Your task to perform on an android device: toggle airplane mode Image 0: 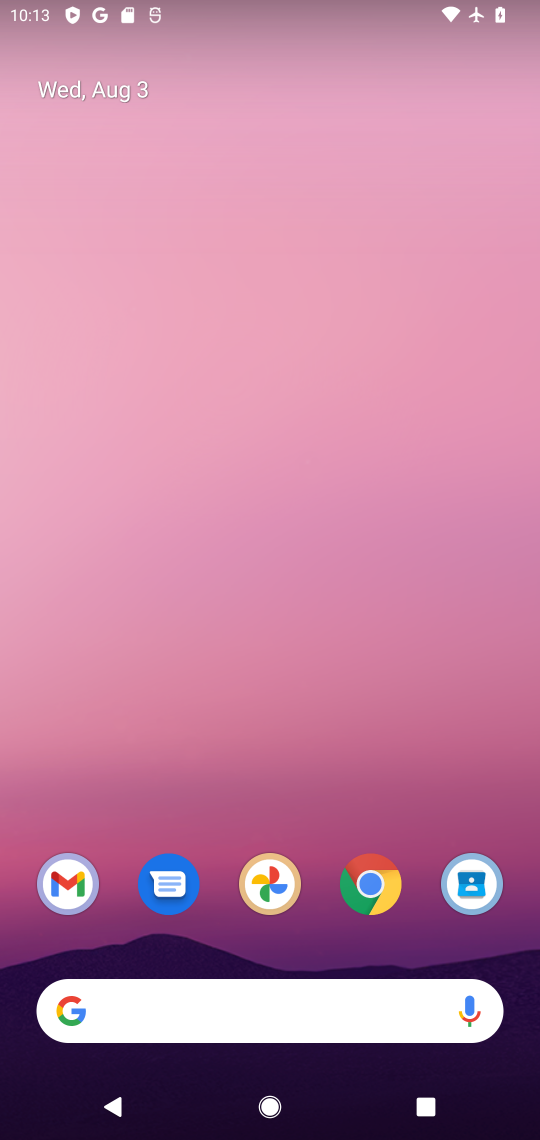
Step 0: press home button
Your task to perform on an android device: toggle airplane mode Image 1: 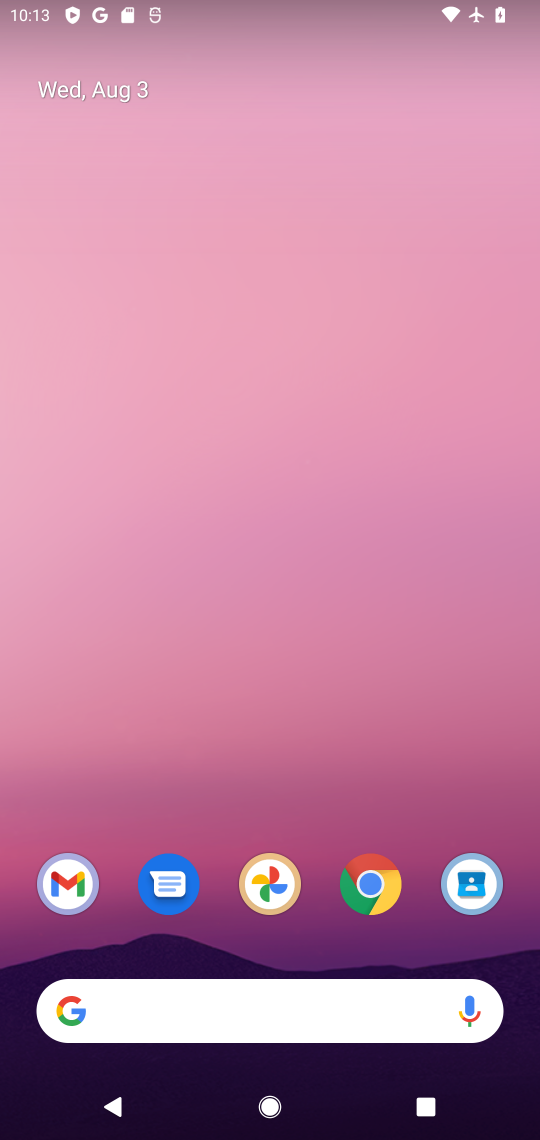
Step 1: drag from (252, 2) to (329, 700)
Your task to perform on an android device: toggle airplane mode Image 2: 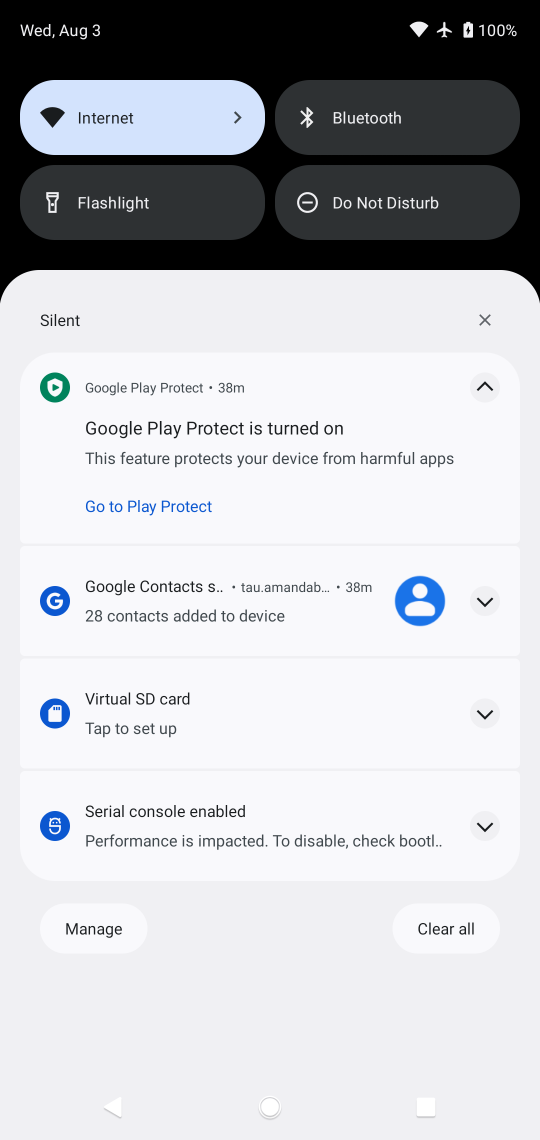
Step 2: drag from (290, 152) to (8, 217)
Your task to perform on an android device: toggle airplane mode Image 3: 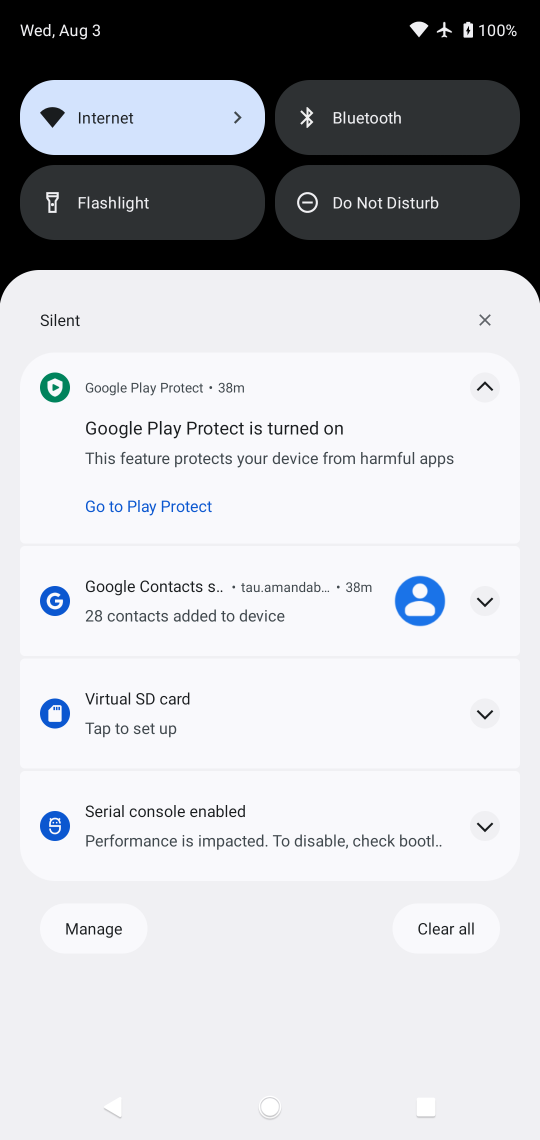
Step 3: drag from (291, 217) to (320, 711)
Your task to perform on an android device: toggle airplane mode Image 4: 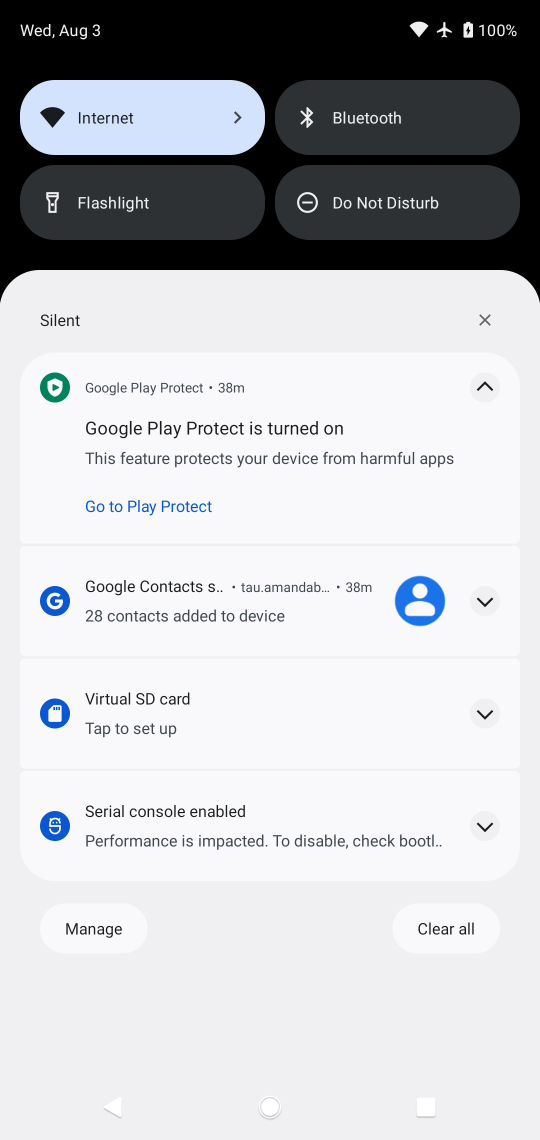
Step 4: drag from (220, 955) to (118, 360)
Your task to perform on an android device: toggle airplane mode Image 5: 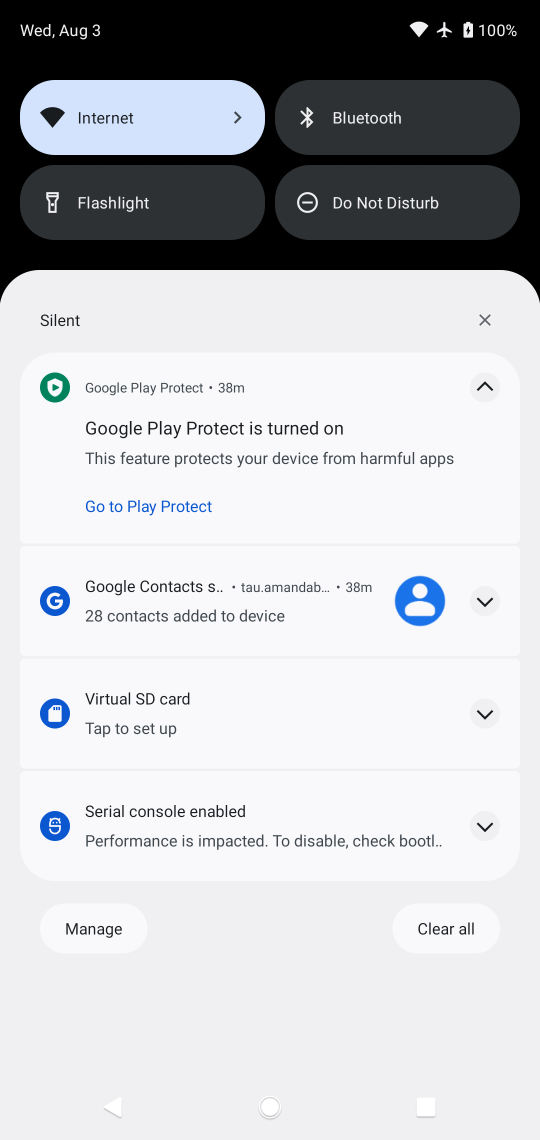
Step 5: press home button
Your task to perform on an android device: toggle airplane mode Image 6: 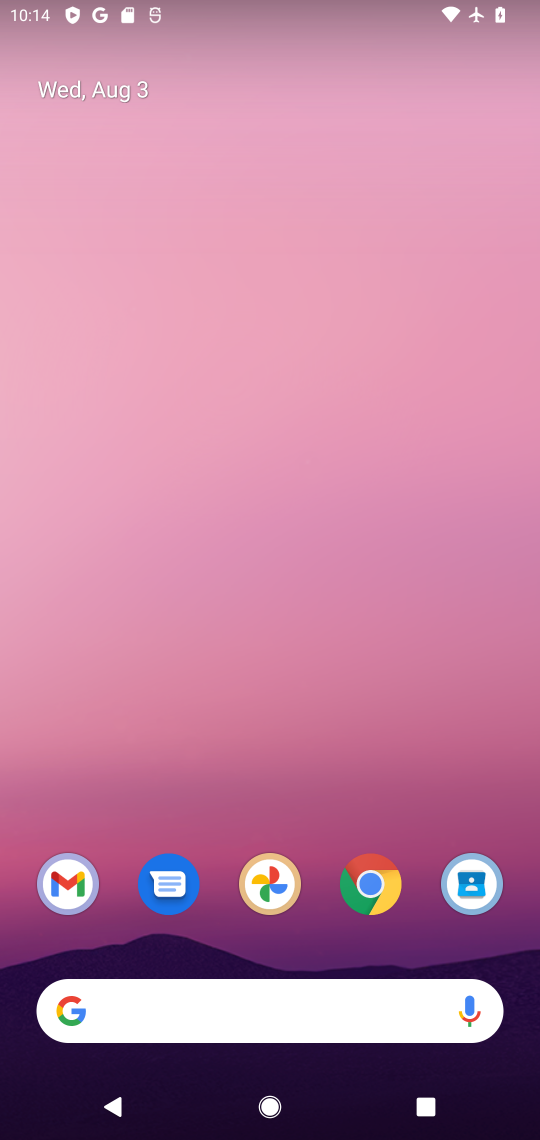
Step 6: drag from (339, 917) to (274, 126)
Your task to perform on an android device: toggle airplane mode Image 7: 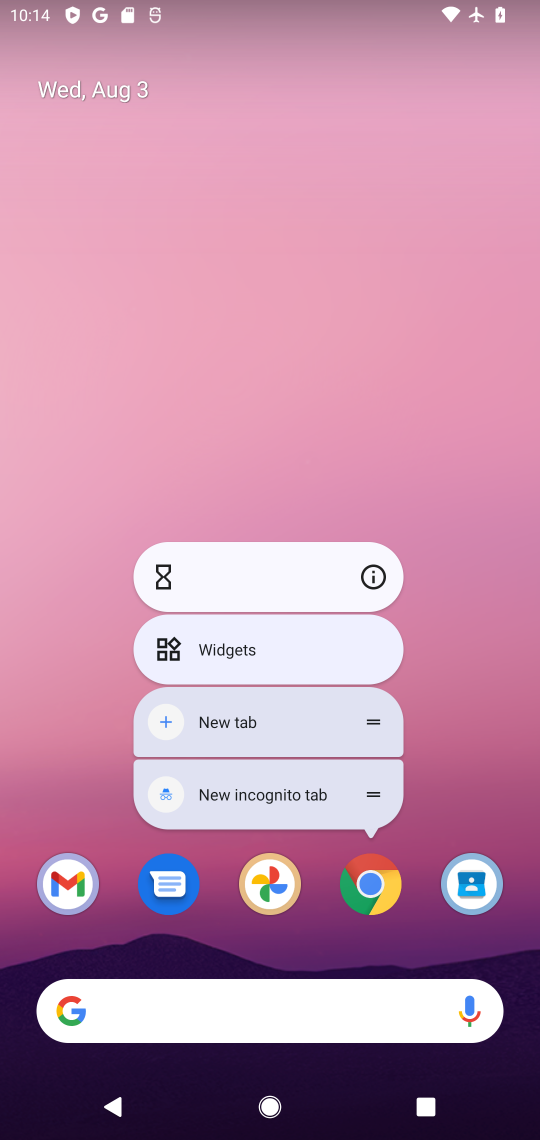
Step 7: click (486, 806)
Your task to perform on an android device: toggle airplane mode Image 8: 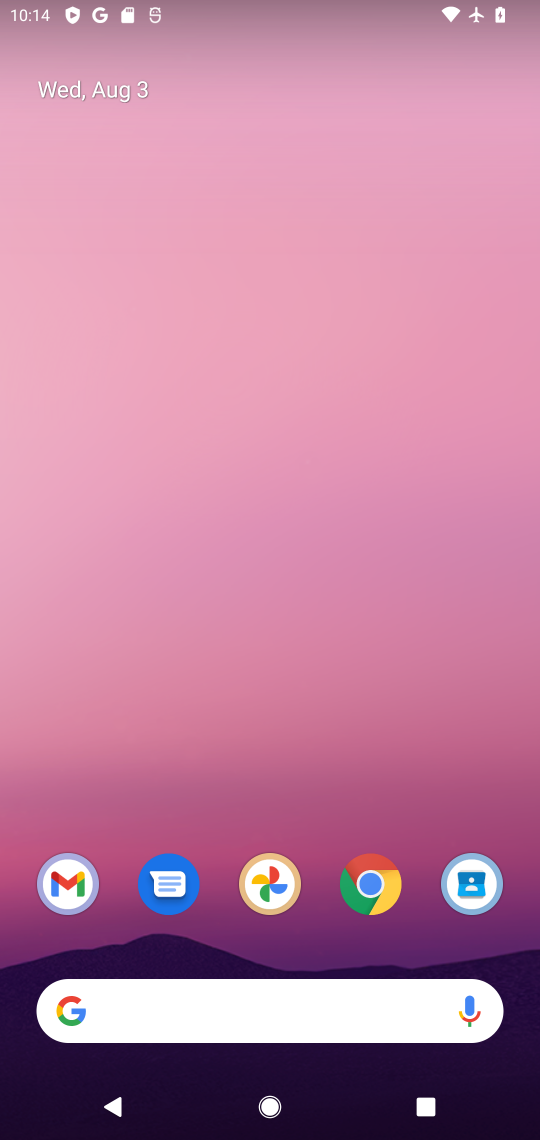
Step 8: drag from (326, 909) to (312, 32)
Your task to perform on an android device: toggle airplane mode Image 9: 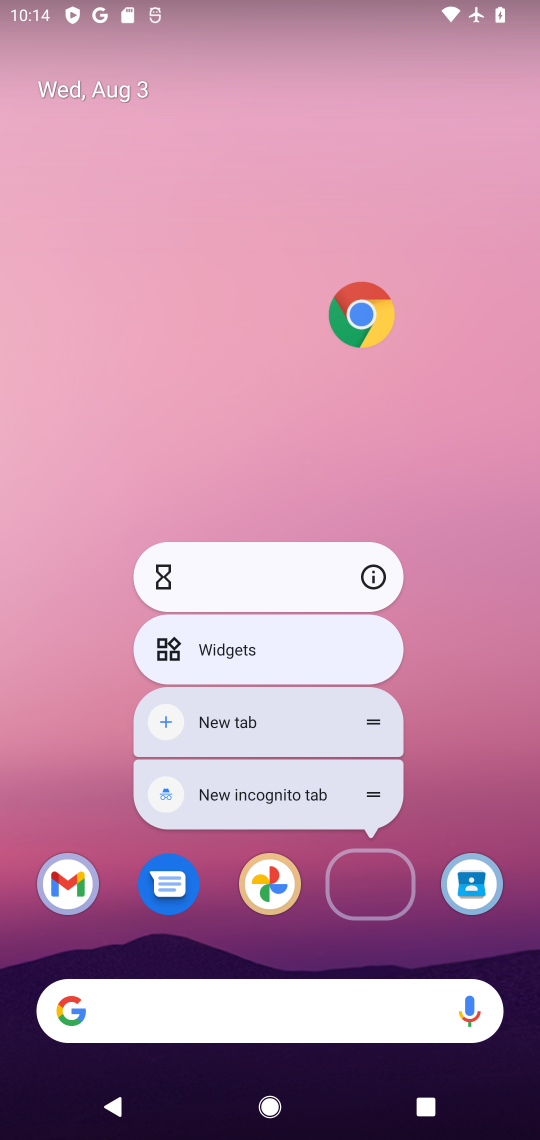
Step 9: click (482, 696)
Your task to perform on an android device: toggle airplane mode Image 10: 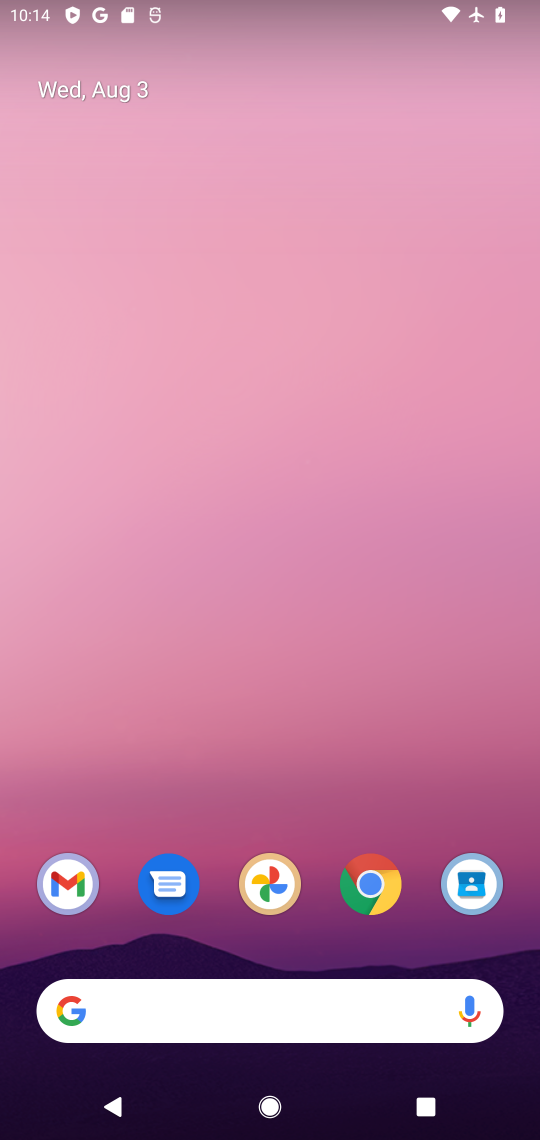
Step 10: drag from (179, 747) to (352, 4)
Your task to perform on an android device: toggle airplane mode Image 11: 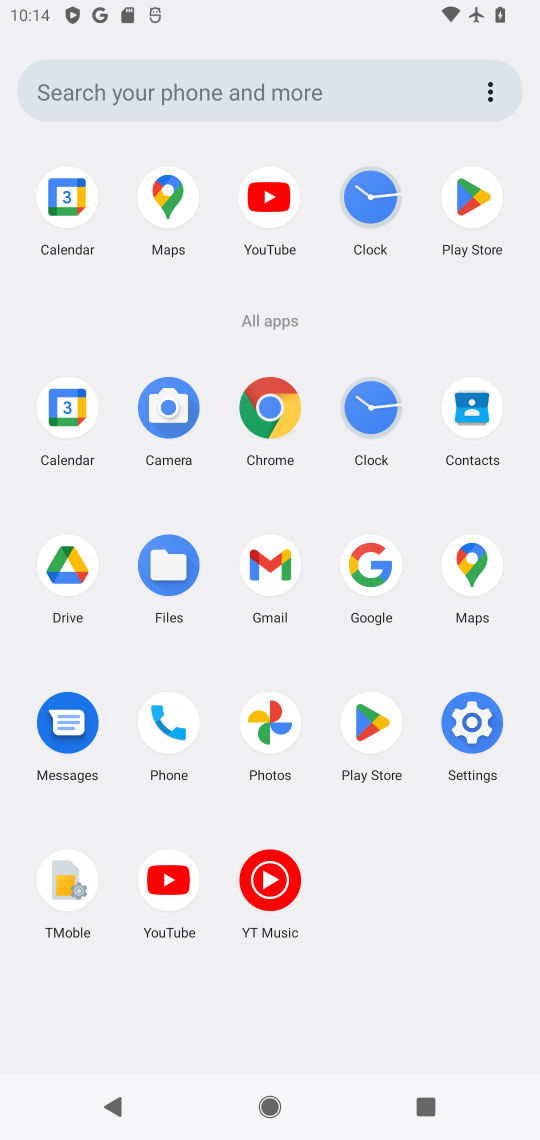
Step 11: click (468, 745)
Your task to perform on an android device: toggle airplane mode Image 12: 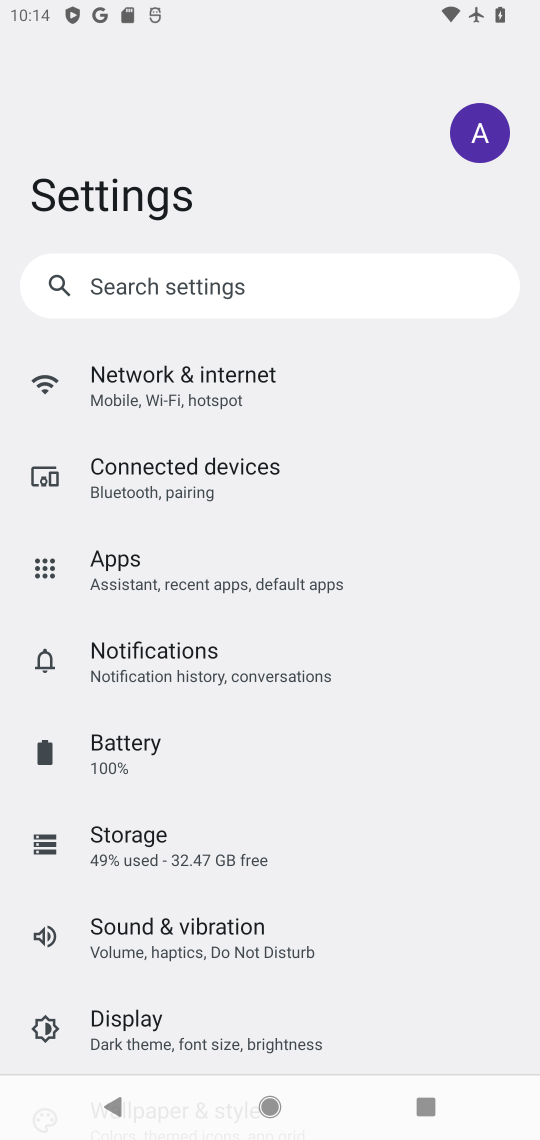
Step 12: click (191, 360)
Your task to perform on an android device: toggle airplane mode Image 13: 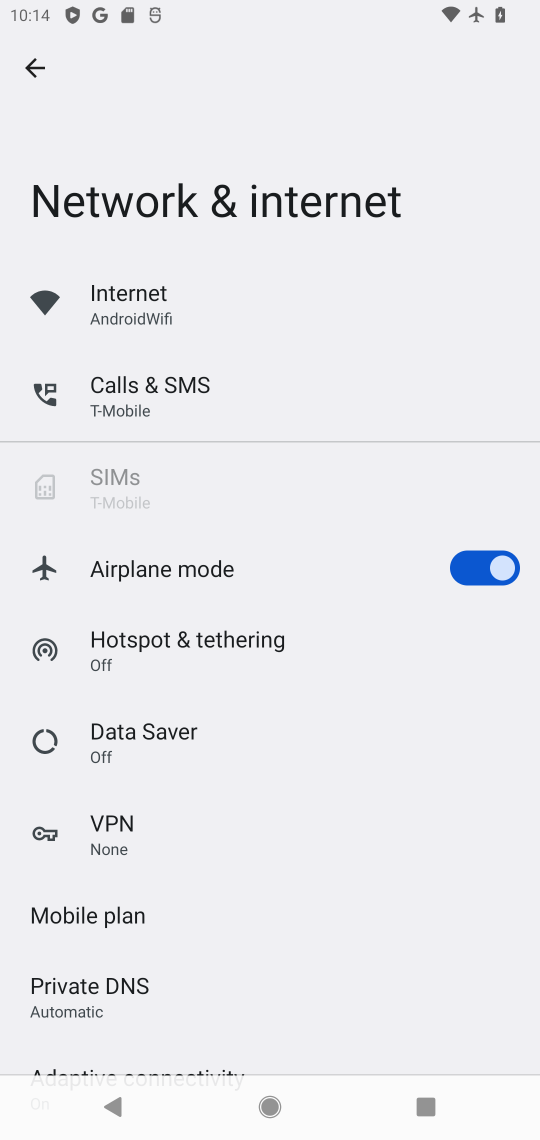
Step 13: click (496, 571)
Your task to perform on an android device: toggle airplane mode Image 14: 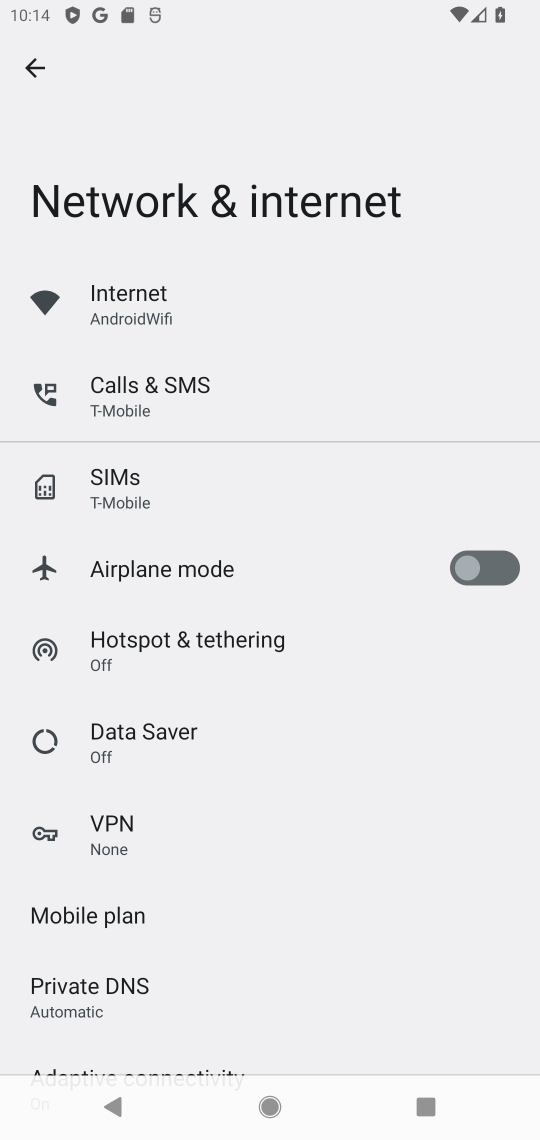
Step 14: task complete